Your task to perform on an android device: turn pop-ups on in chrome Image 0: 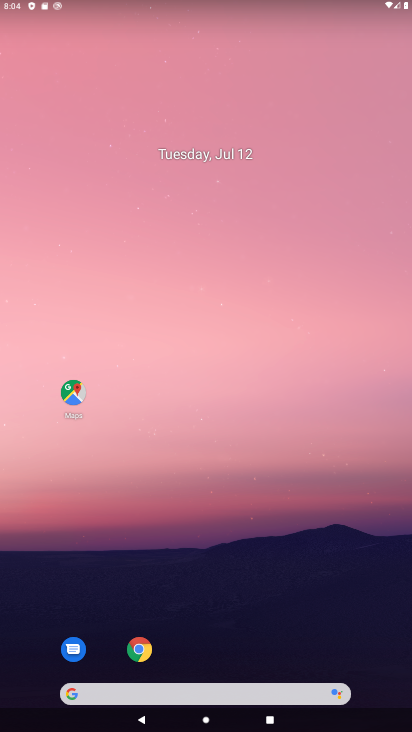
Step 0: click (136, 647)
Your task to perform on an android device: turn pop-ups on in chrome Image 1: 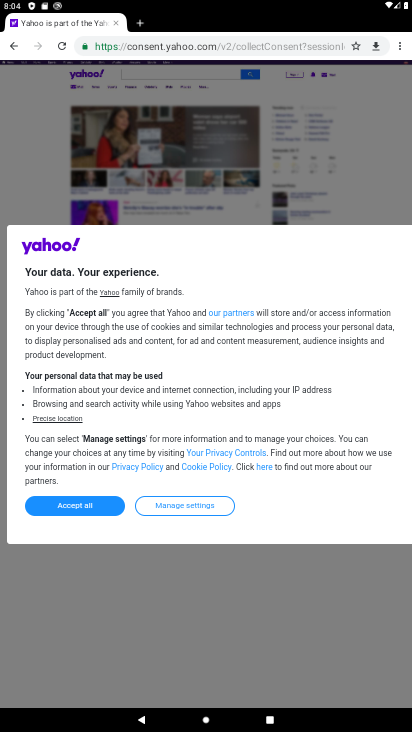
Step 1: click (393, 47)
Your task to perform on an android device: turn pop-ups on in chrome Image 2: 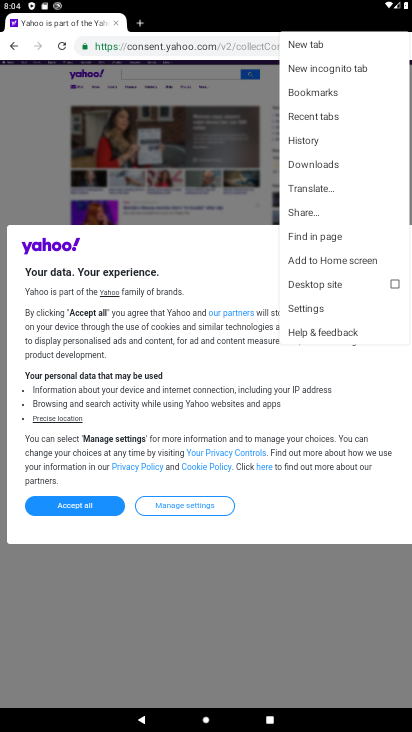
Step 2: click (308, 306)
Your task to perform on an android device: turn pop-ups on in chrome Image 3: 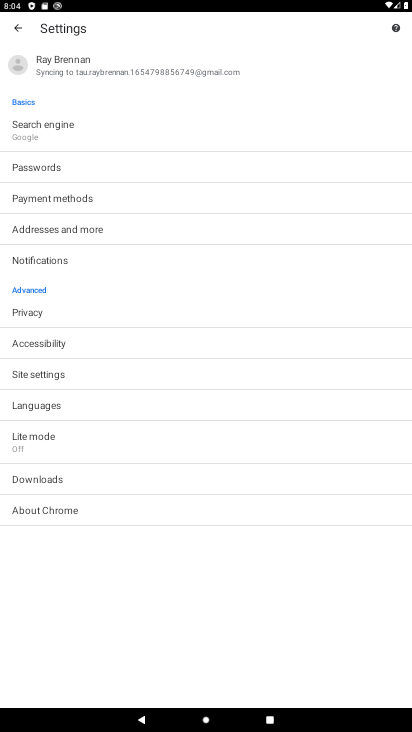
Step 3: click (30, 378)
Your task to perform on an android device: turn pop-ups on in chrome Image 4: 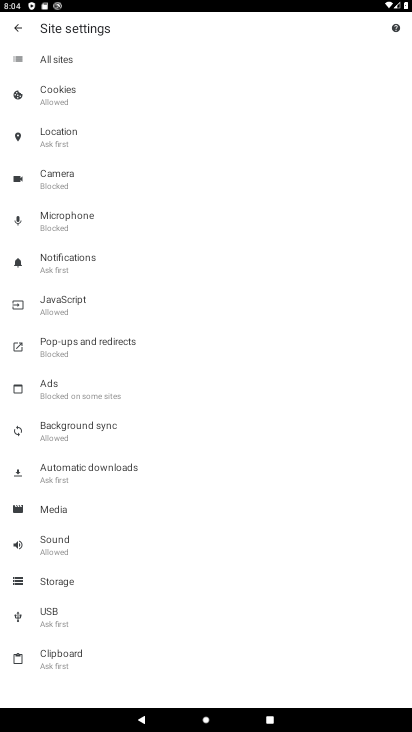
Step 4: click (61, 349)
Your task to perform on an android device: turn pop-ups on in chrome Image 5: 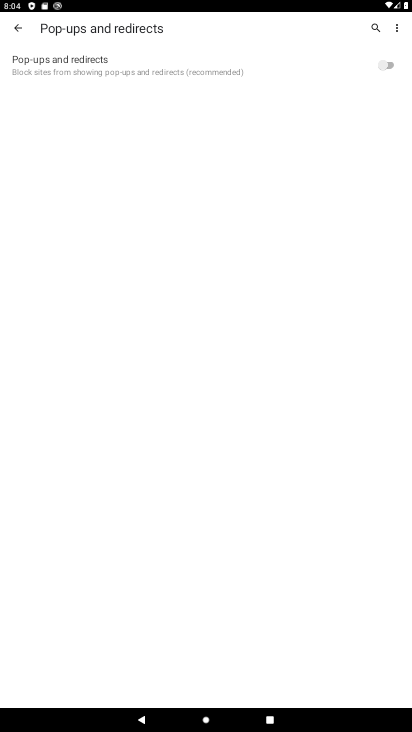
Step 5: click (384, 66)
Your task to perform on an android device: turn pop-ups on in chrome Image 6: 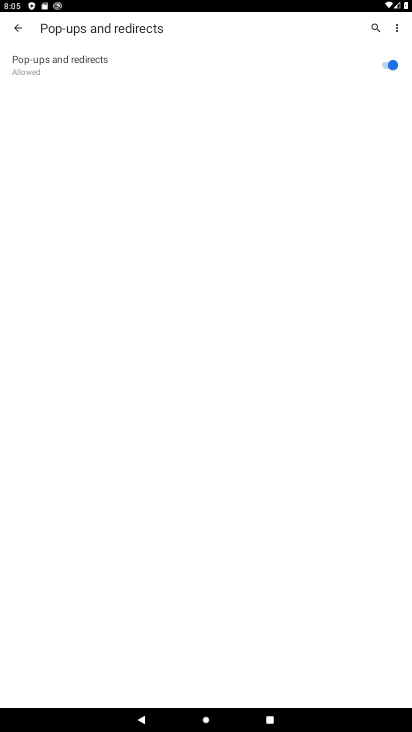
Step 6: task complete